Your task to perform on an android device: remove spam from my inbox in the gmail app Image 0: 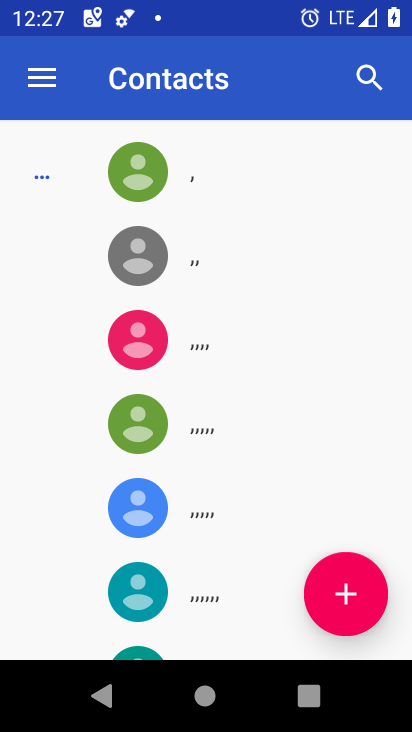
Step 0: press back button
Your task to perform on an android device: remove spam from my inbox in the gmail app Image 1: 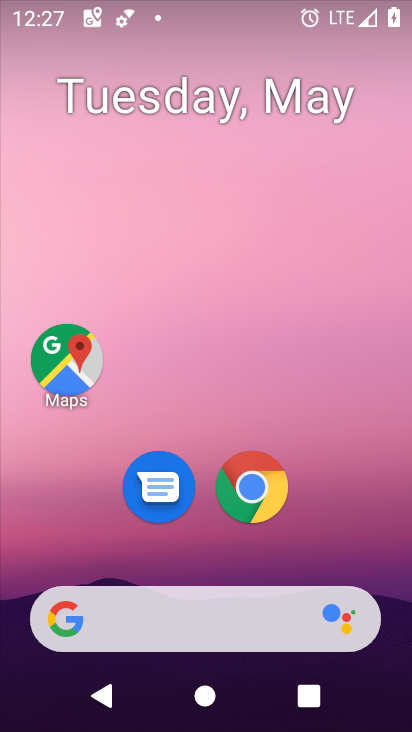
Step 1: drag from (81, 471) to (317, 112)
Your task to perform on an android device: remove spam from my inbox in the gmail app Image 2: 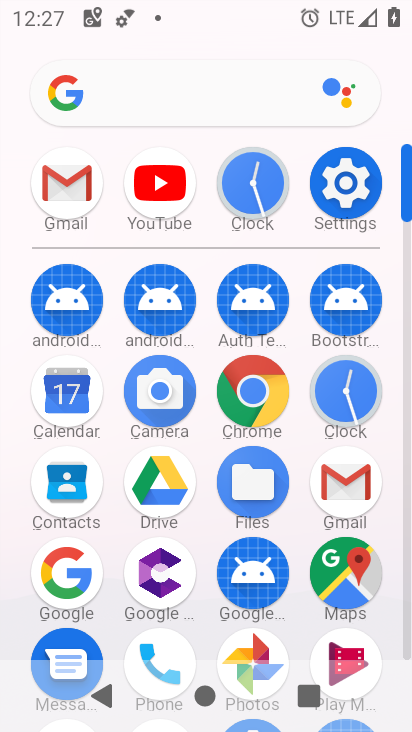
Step 2: click (332, 480)
Your task to perform on an android device: remove spam from my inbox in the gmail app Image 3: 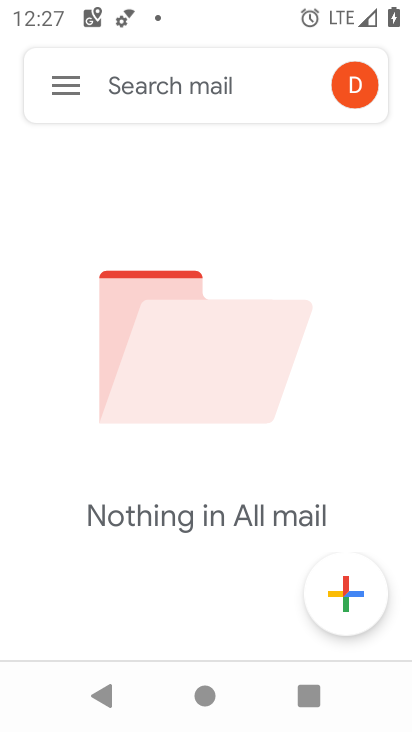
Step 3: click (80, 83)
Your task to perform on an android device: remove spam from my inbox in the gmail app Image 4: 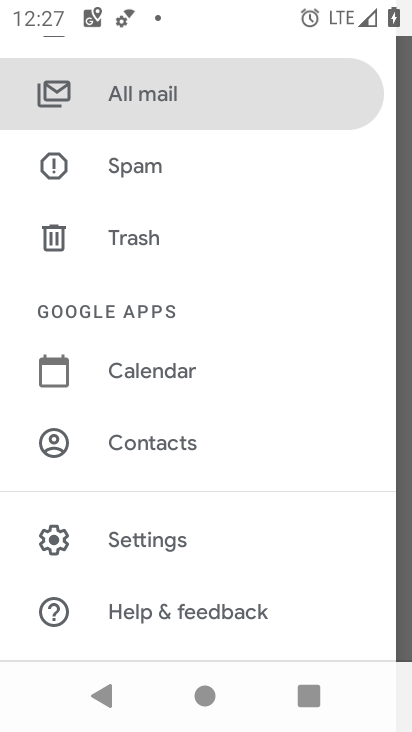
Step 4: click (118, 164)
Your task to perform on an android device: remove spam from my inbox in the gmail app Image 5: 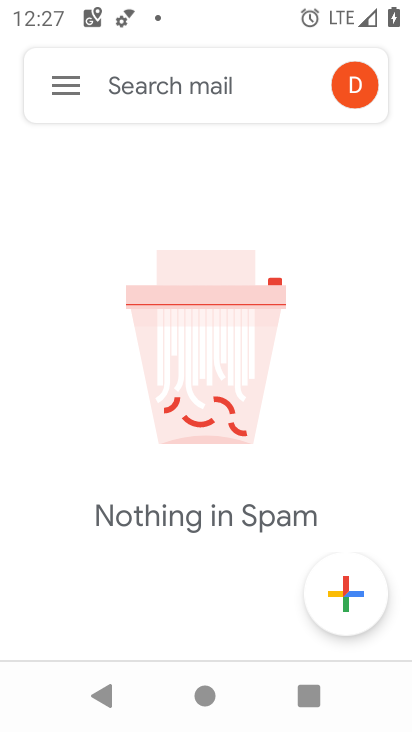
Step 5: task complete